Your task to perform on an android device: change notifications settings Image 0: 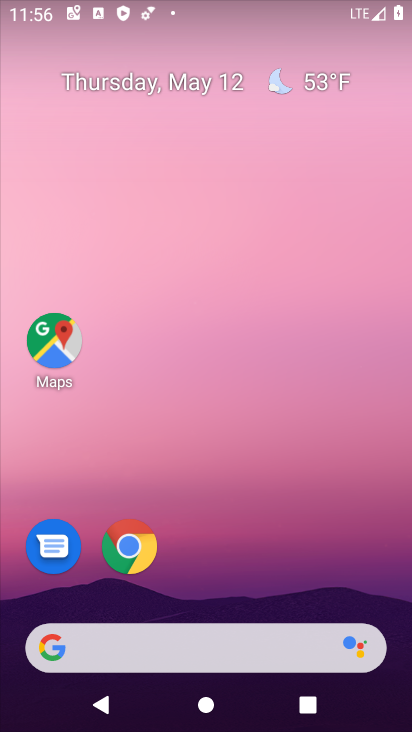
Step 0: drag from (262, 669) to (233, 161)
Your task to perform on an android device: change notifications settings Image 1: 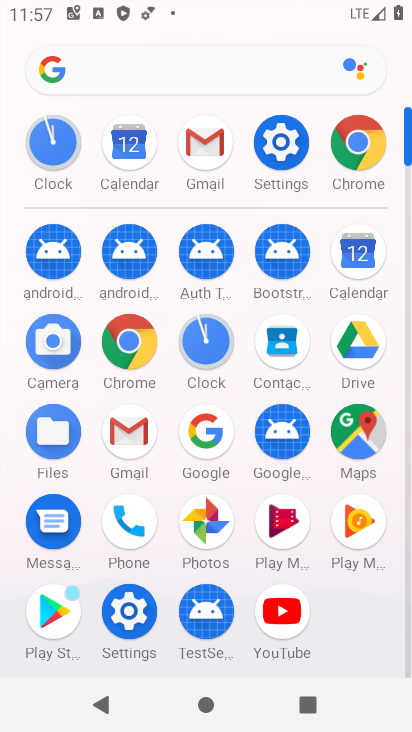
Step 1: click (129, 596)
Your task to perform on an android device: change notifications settings Image 2: 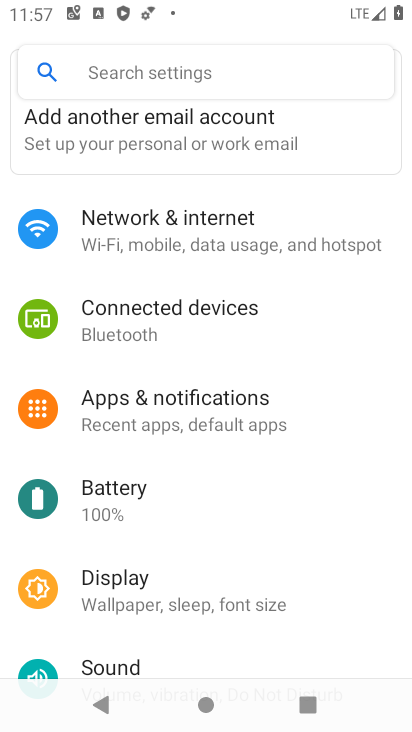
Step 2: click (130, 69)
Your task to perform on an android device: change notifications settings Image 3: 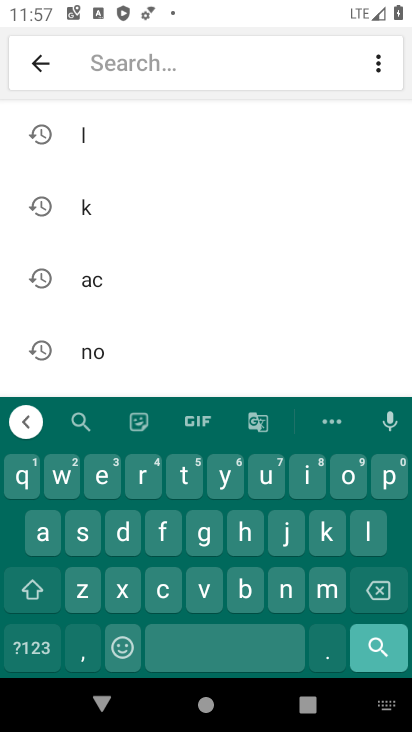
Step 3: click (100, 358)
Your task to perform on an android device: change notifications settings Image 4: 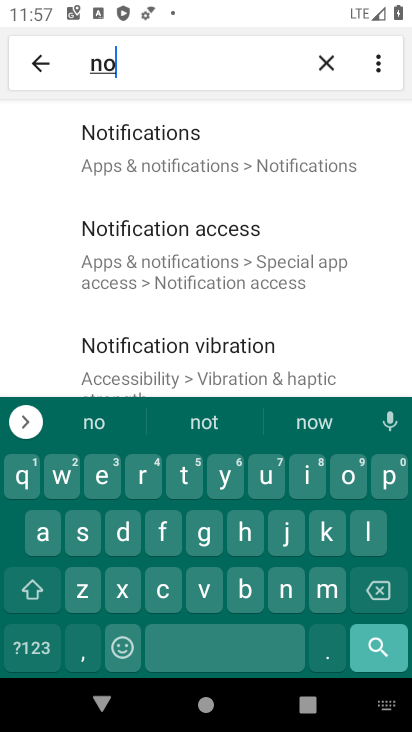
Step 4: click (157, 152)
Your task to perform on an android device: change notifications settings Image 5: 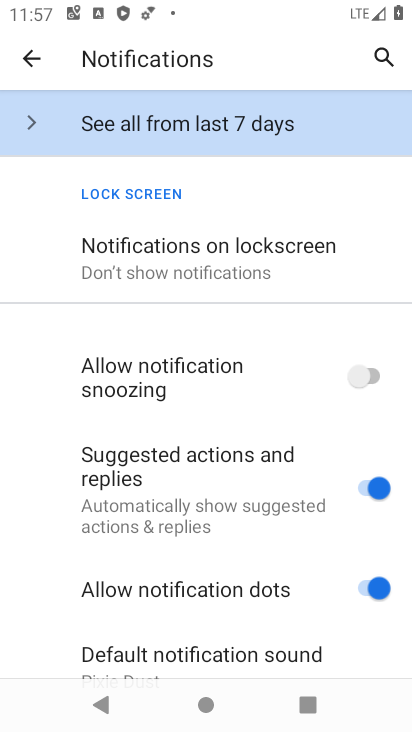
Step 5: click (138, 260)
Your task to perform on an android device: change notifications settings Image 6: 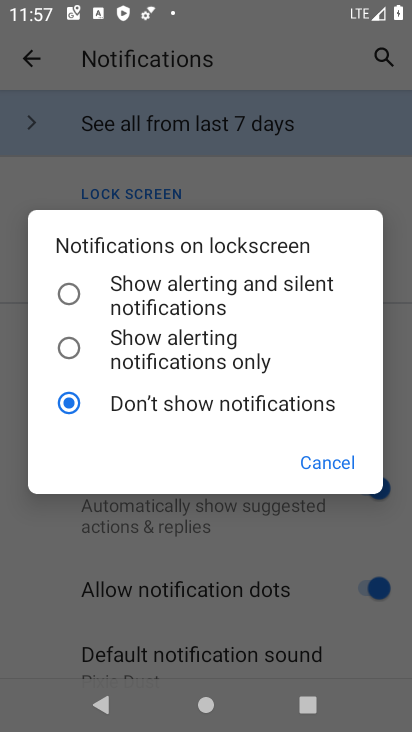
Step 6: click (159, 294)
Your task to perform on an android device: change notifications settings Image 7: 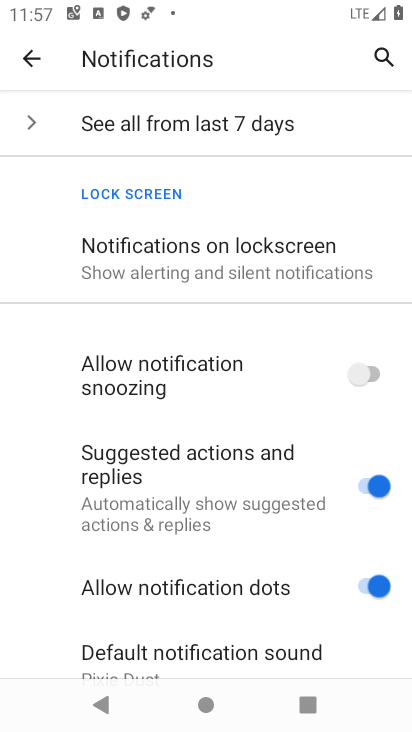
Step 7: task complete